Your task to perform on an android device: View the shopping cart on costco. Add "macbook air" to the cart on costco Image 0: 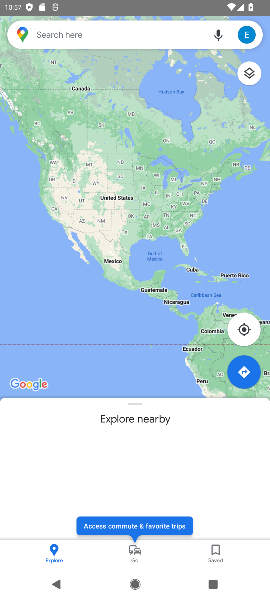
Step 0: press home button
Your task to perform on an android device: View the shopping cart on costco. Add "macbook air" to the cart on costco Image 1: 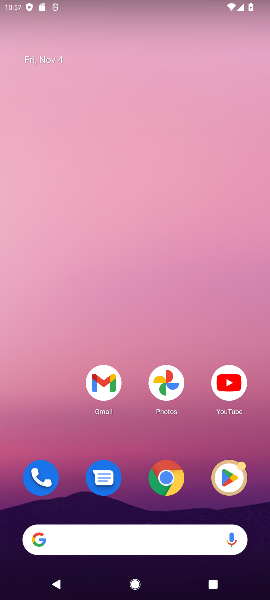
Step 1: click (174, 475)
Your task to perform on an android device: View the shopping cart on costco. Add "macbook air" to the cart on costco Image 2: 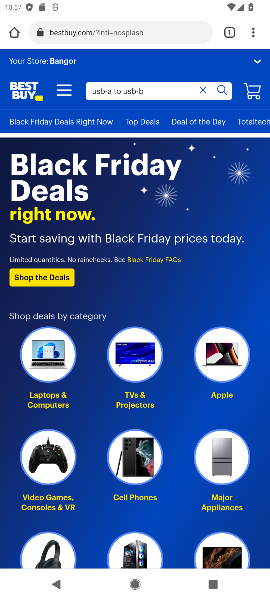
Step 2: click (154, 32)
Your task to perform on an android device: View the shopping cart on costco. Add "macbook air" to the cart on costco Image 3: 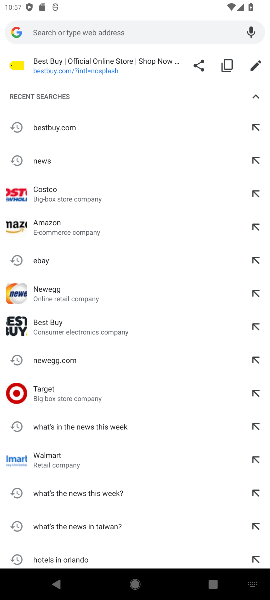
Step 3: type "costco"
Your task to perform on an android device: View the shopping cart on costco. Add "macbook air" to the cart on costco Image 4: 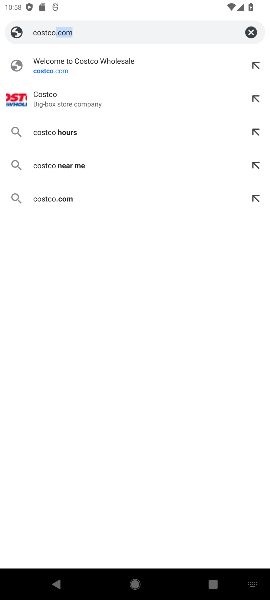
Step 4: click (204, 34)
Your task to perform on an android device: View the shopping cart on costco. Add "macbook air" to the cart on costco Image 5: 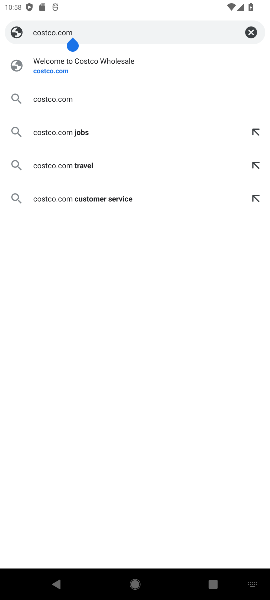
Step 5: click (47, 93)
Your task to perform on an android device: View the shopping cart on costco. Add "macbook air" to the cart on costco Image 6: 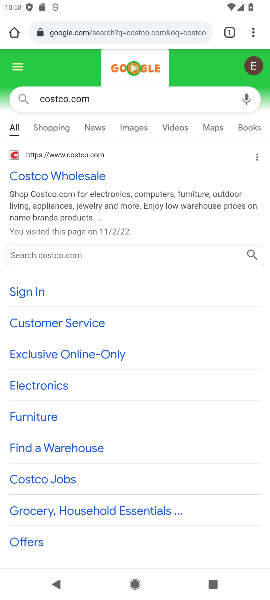
Step 6: click (74, 154)
Your task to perform on an android device: View the shopping cart on costco. Add "macbook air" to the cart on costco Image 7: 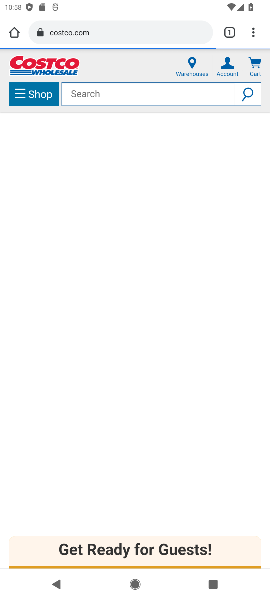
Step 7: click (151, 99)
Your task to perform on an android device: View the shopping cart on costco. Add "macbook air" to the cart on costco Image 8: 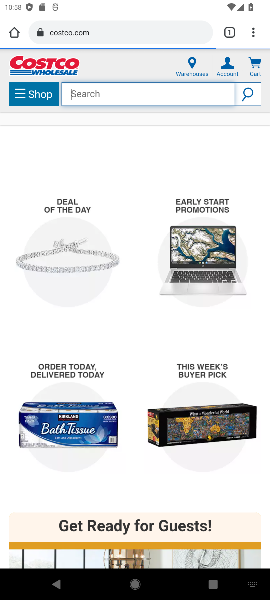
Step 8: press enter
Your task to perform on an android device: View the shopping cart on costco. Add "macbook air" to the cart on costco Image 9: 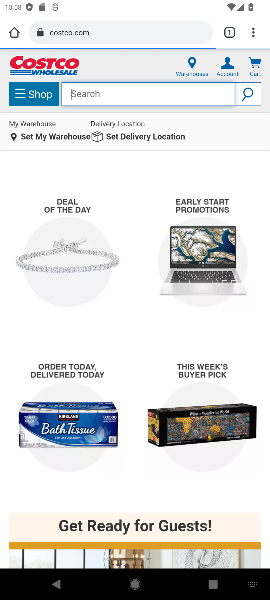
Step 9: type "macbook air"
Your task to perform on an android device: View the shopping cart on costco. Add "macbook air" to the cart on costco Image 10: 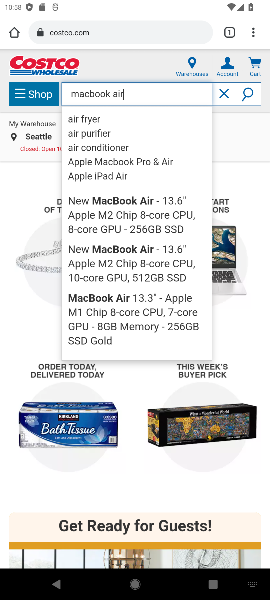
Step 10: click (244, 149)
Your task to perform on an android device: View the shopping cart on costco. Add "macbook air" to the cart on costco Image 11: 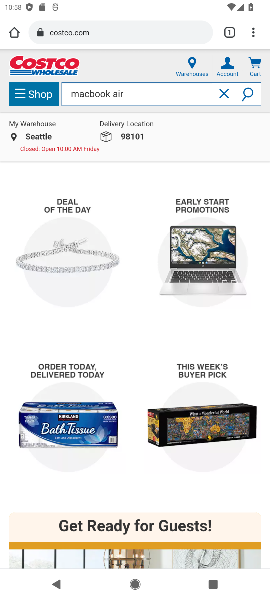
Step 11: task complete